Your task to perform on an android device: Go to notification settings Image 0: 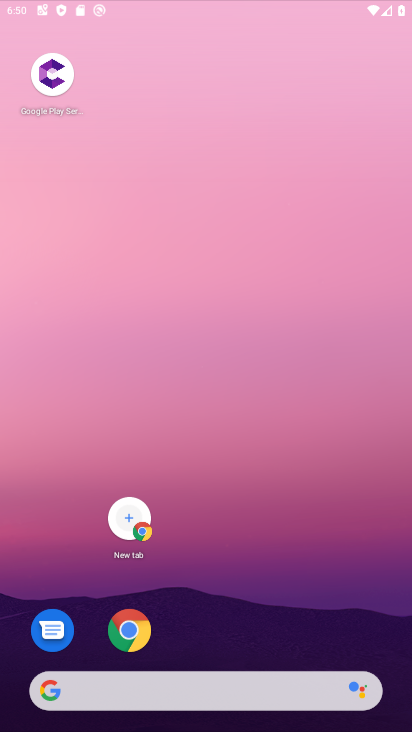
Step 0: drag from (294, 602) to (153, 195)
Your task to perform on an android device: Go to notification settings Image 1: 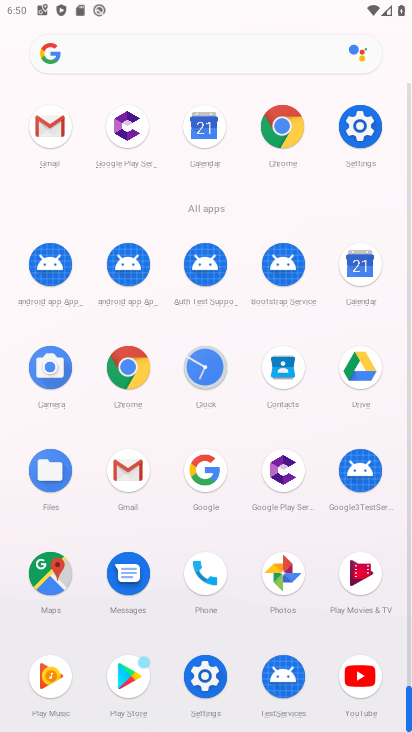
Step 1: click (201, 671)
Your task to perform on an android device: Go to notification settings Image 2: 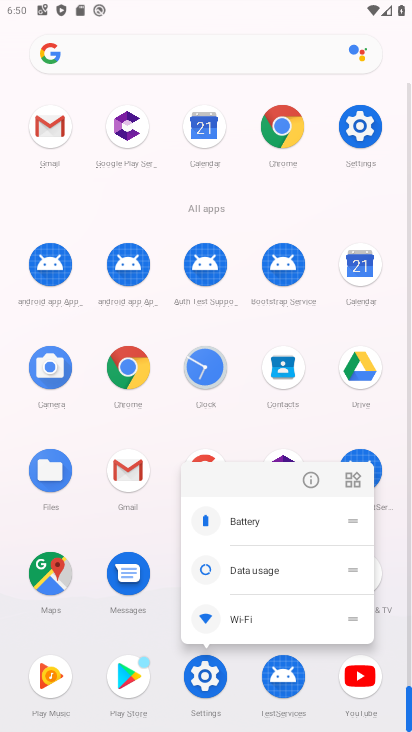
Step 2: click (207, 661)
Your task to perform on an android device: Go to notification settings Image 3: 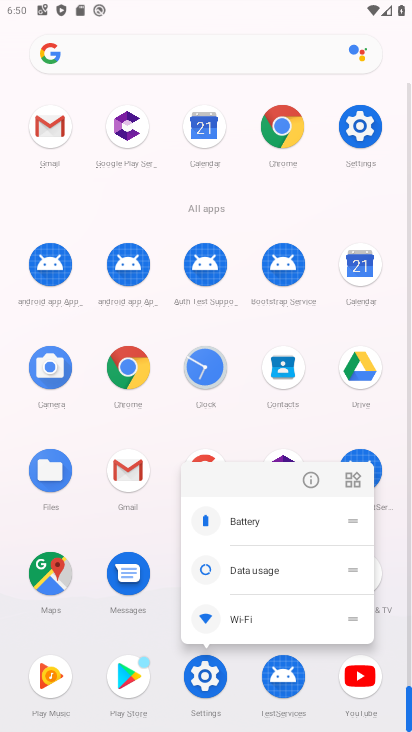
Step 3: click (210, 680)
Your task to perform on an android device: Go to notification settings Image 4: 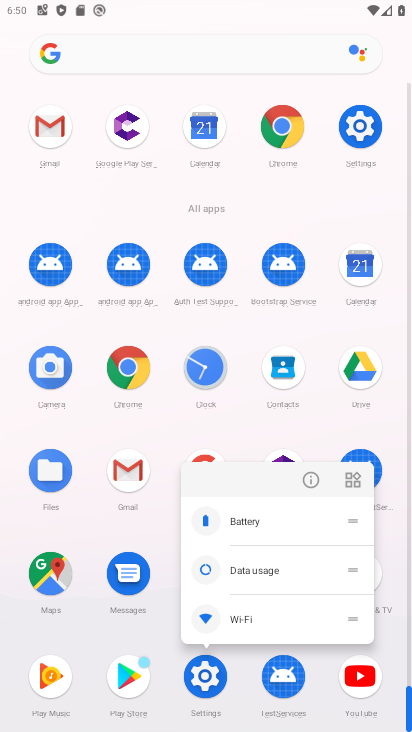
Step 4: click (208, 680)
Your task to perform on an android device: Go to notification settings Image 5: 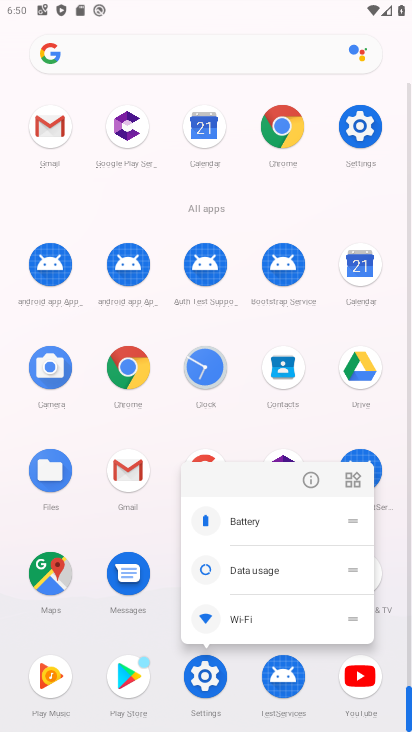
Step 5: click (204, 663)
Your task to perform on an android device: Go to notification settings Image 6: 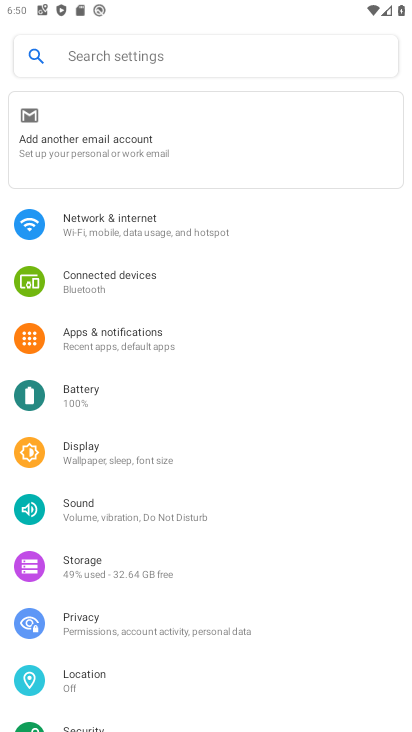
Step 6: click (148, 351)
Your task to perform on an android device: Go to notification settings Image 7: 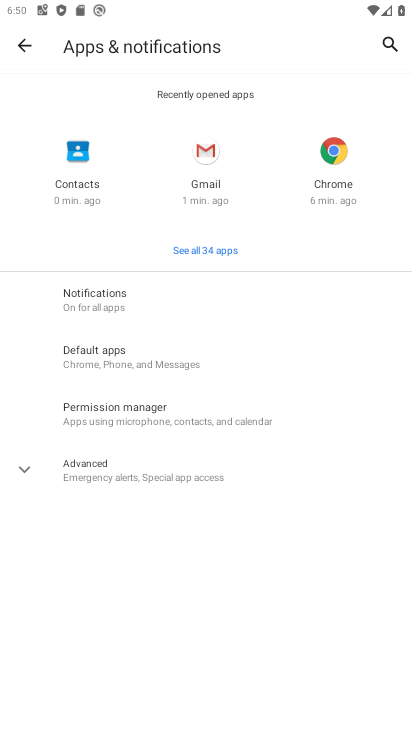
Step 7: click (72, 291)
Your task to perform on an android device: Go to notification settings Image 8: 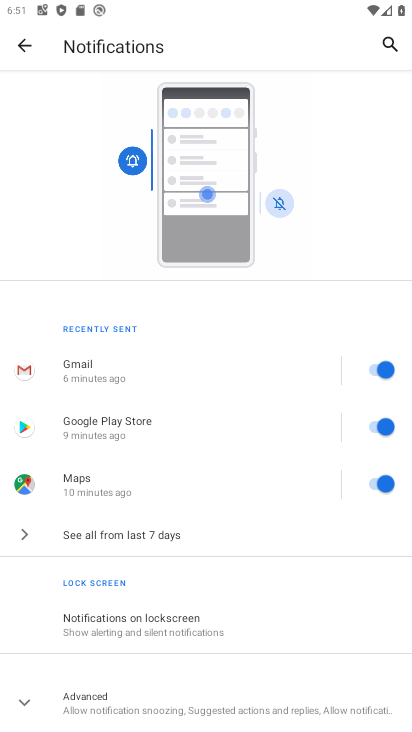
Step 8: task complete